Your task to perform on an android device: check data usage Image 0: 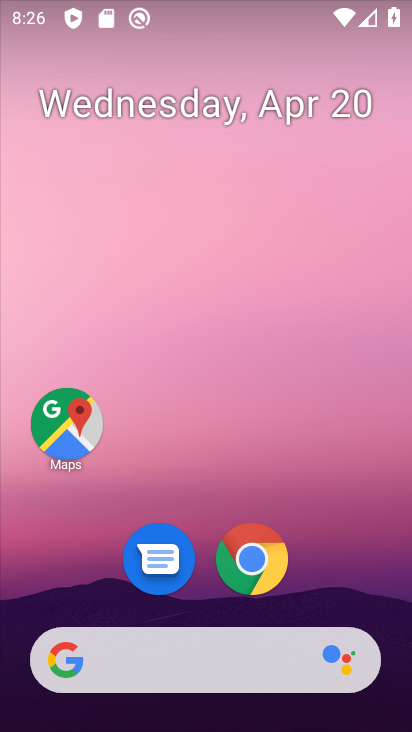
Step 0: drag from (381, 608) to (270, 133)
Your task to perform on an android device: check data usage Image 1: 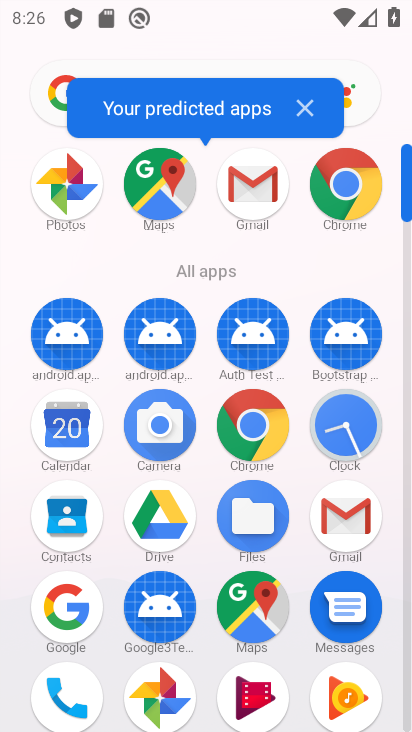
Step 1: click (408, 674)
Your task to perform on an android device: check data usage Image 2: 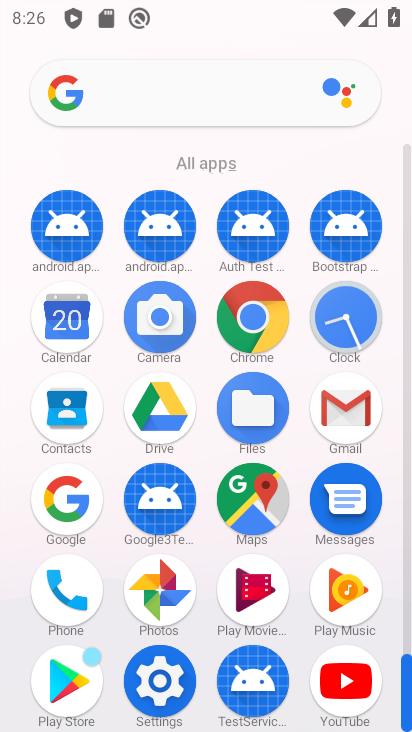
Step 2: click (157, 682)
Your task to perform on an android device: check data usage Image 3: 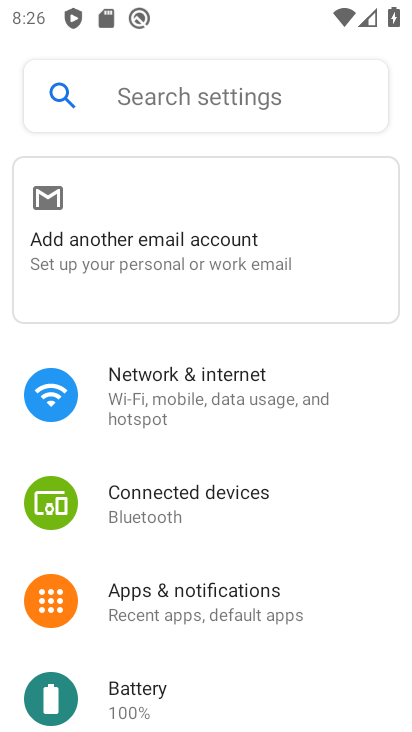
Step 3: click (173, 395)
Your task to perform on an android device: check data usage Image 4: 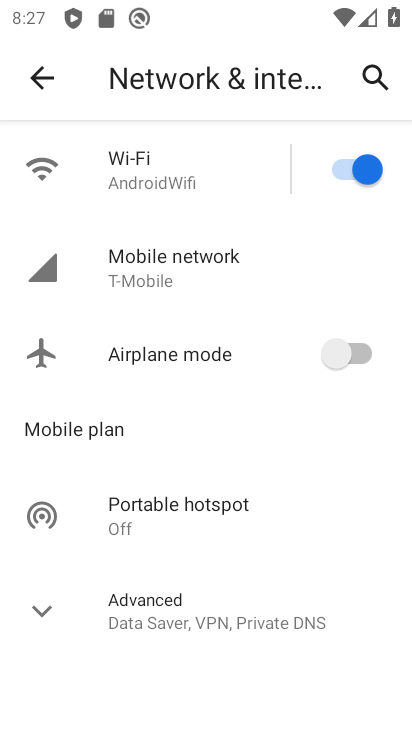
Step 4: click (141, 259)
Your task to perform on an android device: check data usage Image 5: 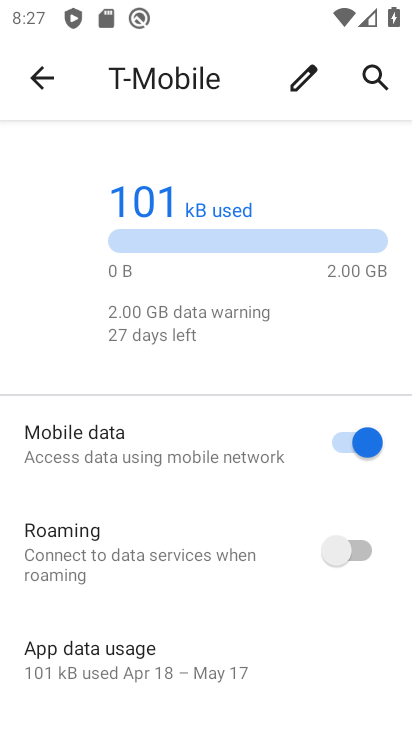
Step 5: task complete